Your task to perform on an android device: Open calendar and show me the first week of next month Image 0: 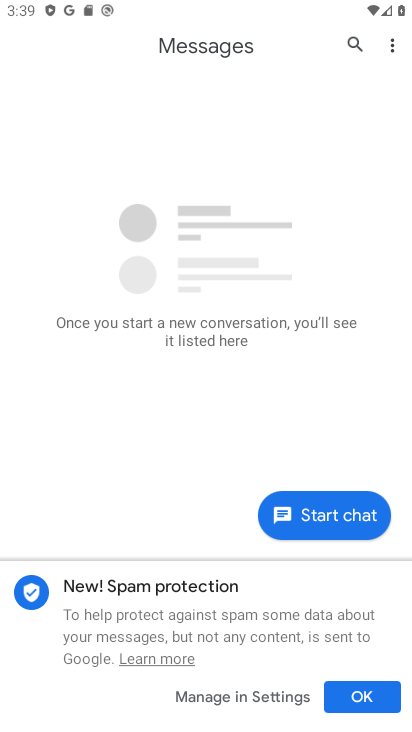
Step 0: press home button
Your task to perform on an android device: Open calendar and show me the first week of next month Image 1: 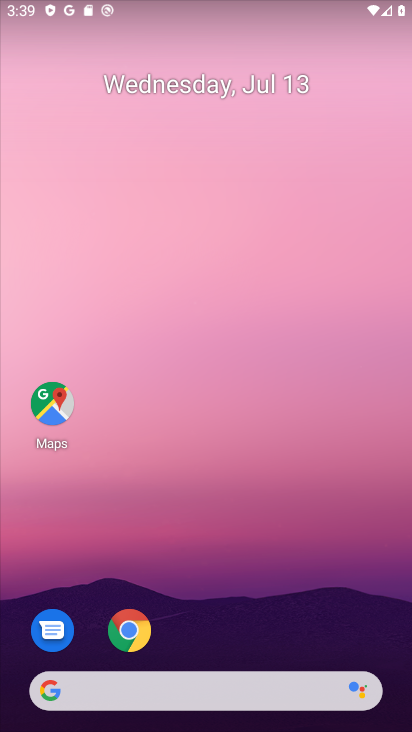
Step 1: drag from (206, 597) to (236, 77)
Your task to perform on an android device: Open calendar and show me the first week of next month Image 2: 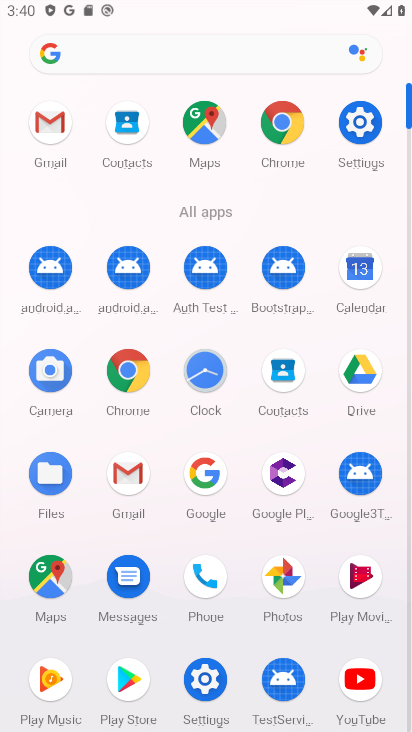
Step 2: click (353, 304)
Your task to perform on an android device: Open calendar and show me the first week of next month Image 3: 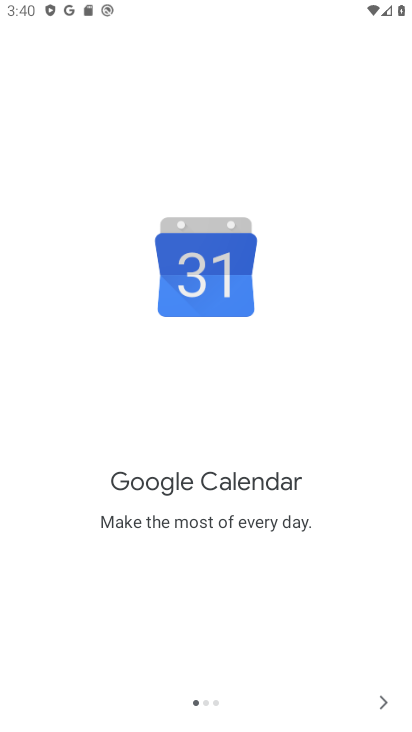
Step 3: click (387, 697)
Your task to perform on an android device: Open calendar and show me the first week of next month Image 4: 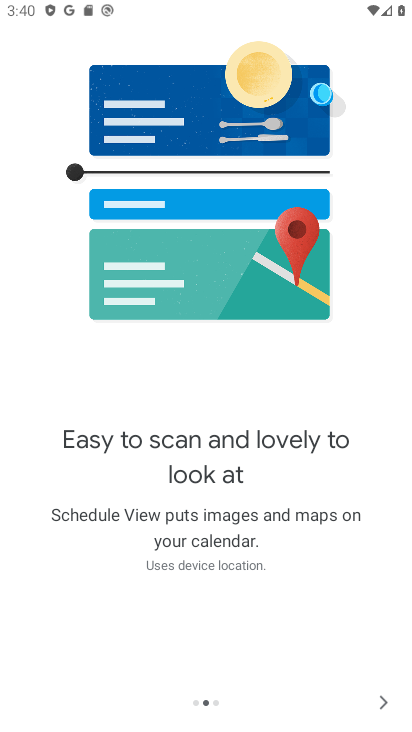
Step 4: click (387, 697)
Your task to perform on an android device: Open calendar and show me the first week of next month Image 5: 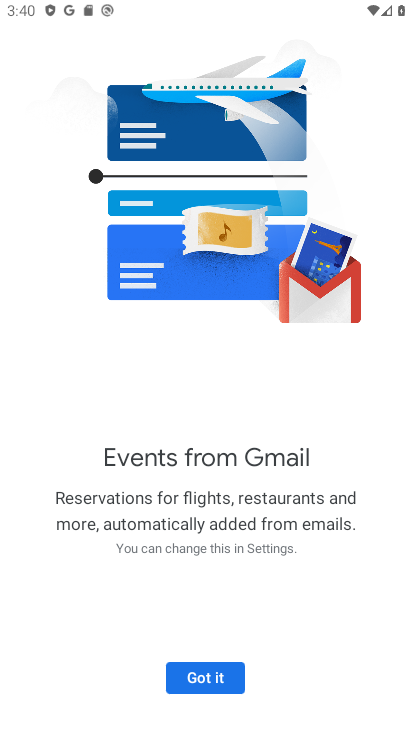
Step 5: click (203, 684)
Your task to perform on an android device: Open calendar and show me the first week of next month Image 6: 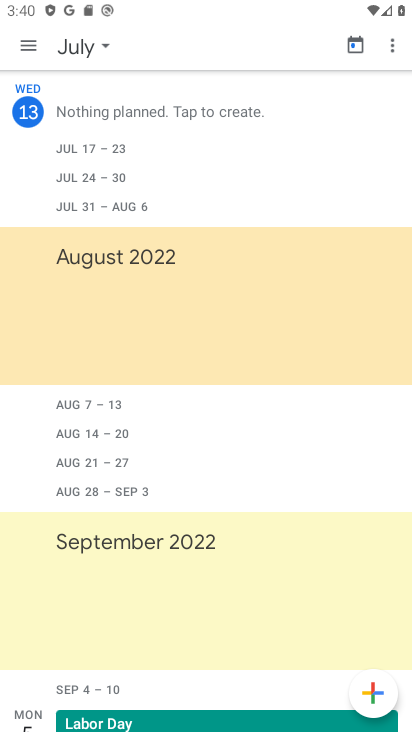
Step 6: click (81, 42)
Your task to perform on an android device: Open calendar and show me the first week of next month Image 7: 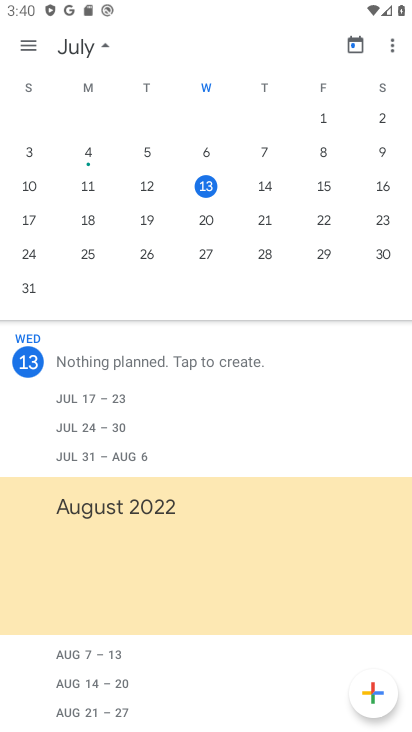
Step 7: drag from (281, 206) to (93, 176)
Your task to perform on an android device: Open calendar and show me the first week of next month Image 8: 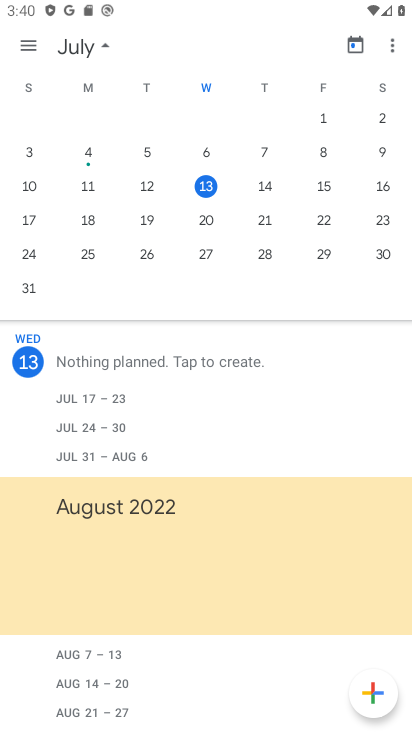
Step 8: drag from (300, 181) to (191, 162)
Your task to perform on an android device: Open calendar and show me the first week of next month Image 9: 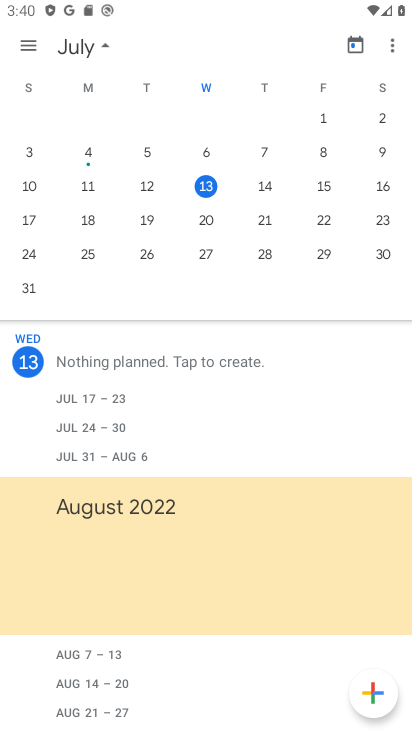
Step 9: drag from (344, 200) to (170, 141)
Your task to perform on an android device: Open calendar and show me the first week of next month Image 10: 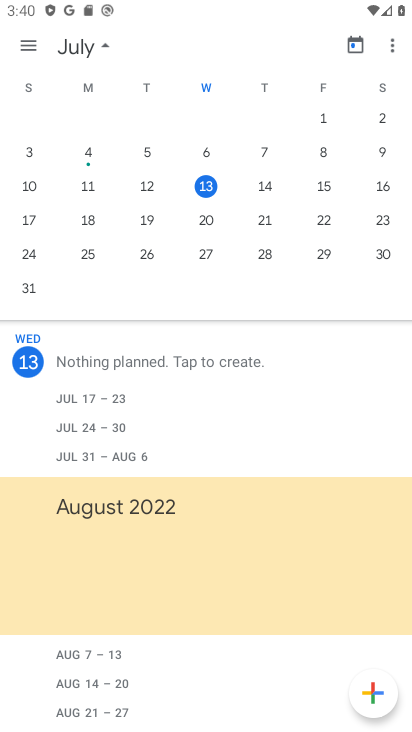
Step 10: drag from (378, 207) to (46, 181)
Your task to perform on an android device: Open calendar and show me the first week of next month Image 11: 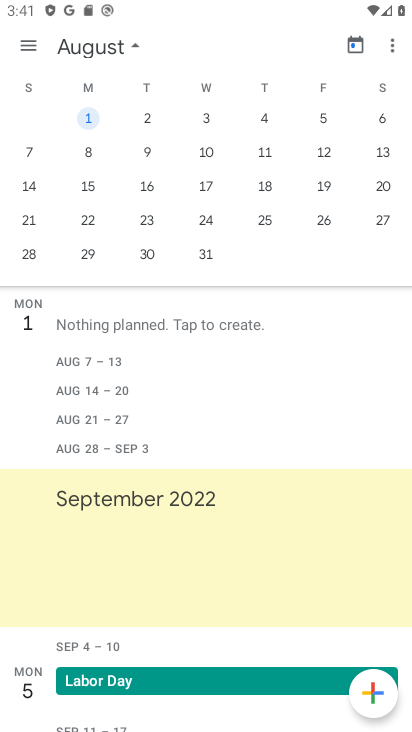
Step 11: click (29, 44)
Your task to perform on an android device: Open calendar and show me the first week of next month Image 12: 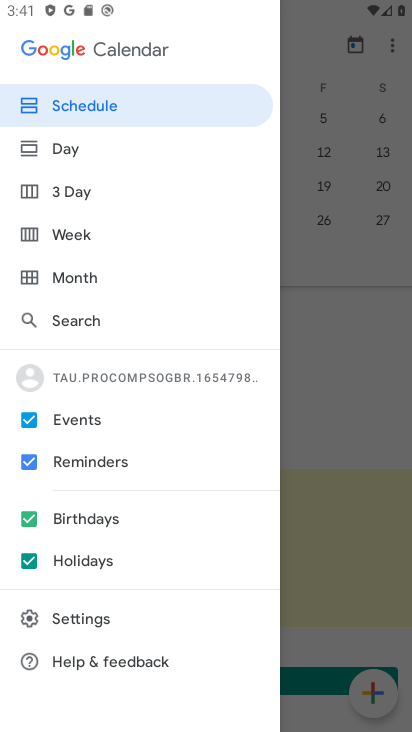
Step 12: click (73, 234)
Your task to perform on an android device: Open calendar and show me the first week of next month Image 13: 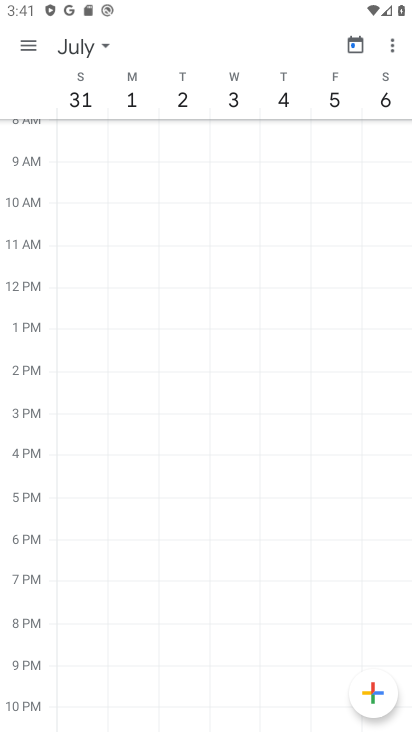
Step 13: task complete